Your task to perform on an android device: Go to internet settings Image 0: 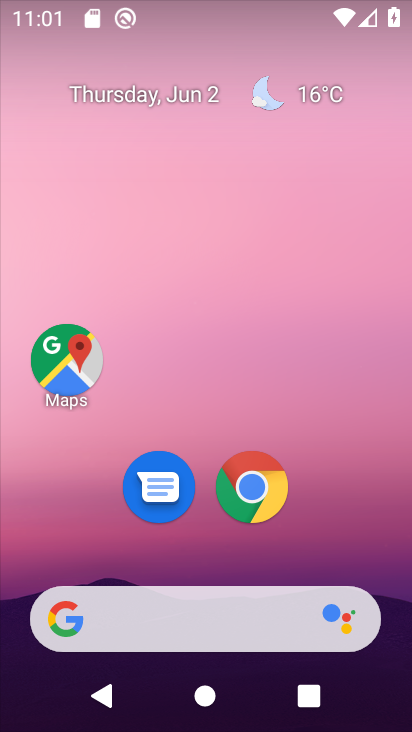
Step 0: drag from (354, 480) to (314, 154)
Your task to perform on an android device: Go to internet settings Image 1: 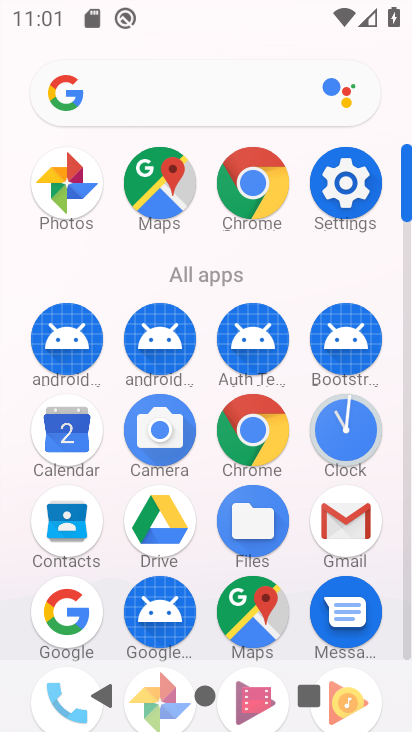
Step 1: click (350, 181)
Your task to perform on an android device: Go to internet settings Image 2: 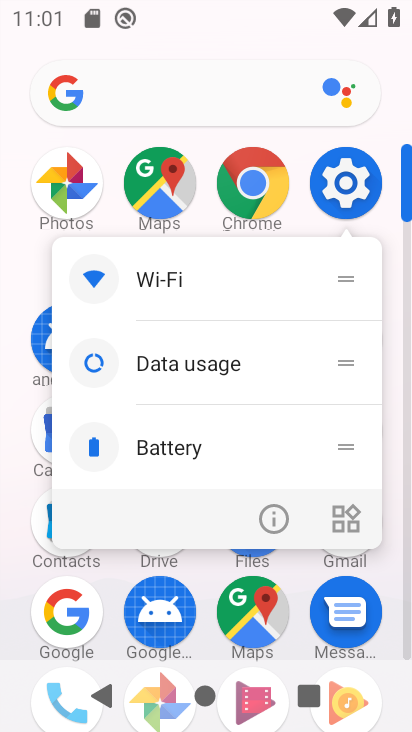
Step 2: click (350, 181)
Your task to perform on an android device: Go to internet settings Image 3: 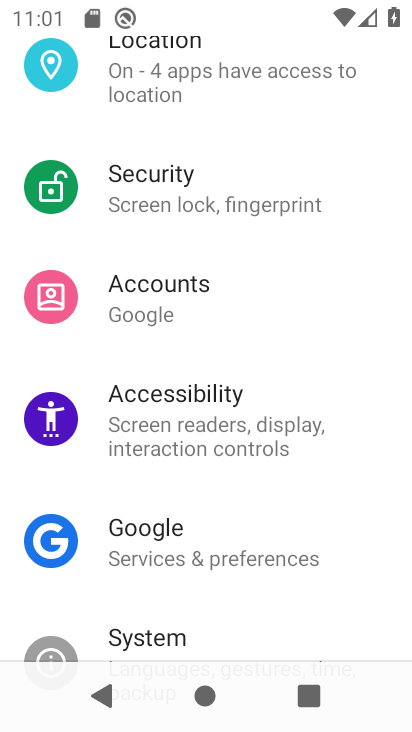
Step 3: drag from (268, 291) to (278, 394)
Your task to perform on an android device: Go to internet settings Image 4: 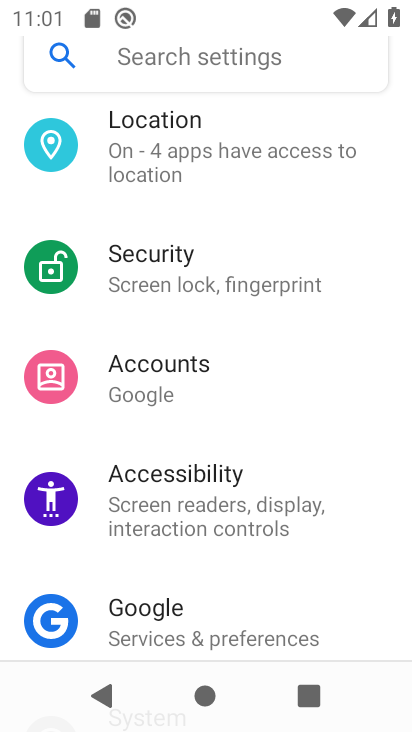
Step 4: drag from (233, 237) to (262, 367)
Your task to perform on an android device: Go to internet settings Image 5: 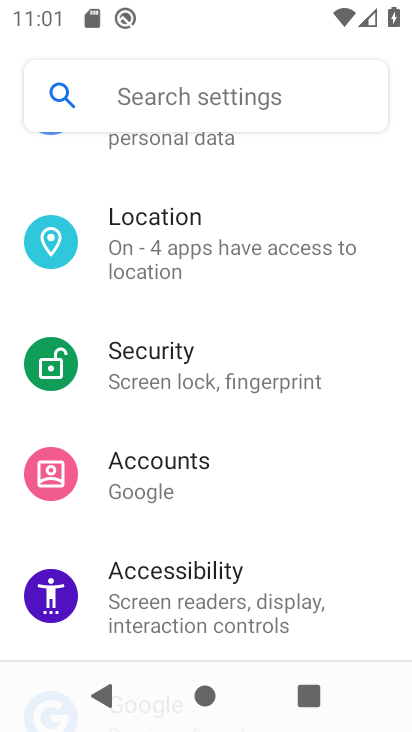
Step 5: drag from (280, 313) to (282, 404)
Your task to perform on an android device: Go to internet settings Image 6: 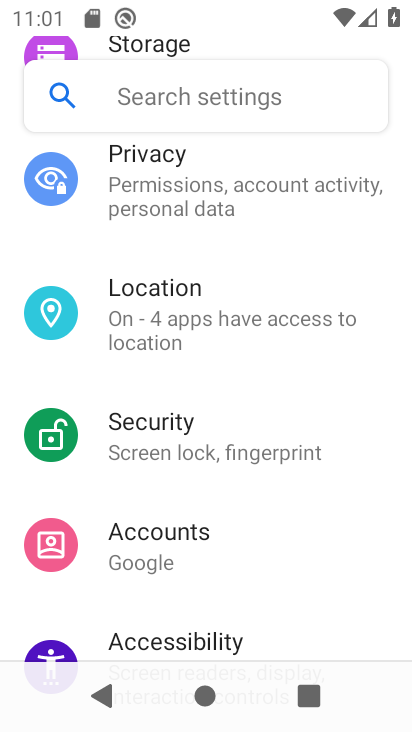
Step 6: drag from (273, 263) to (306, 363)
Your task to perform on an android device: Go to internet settings Image 7: 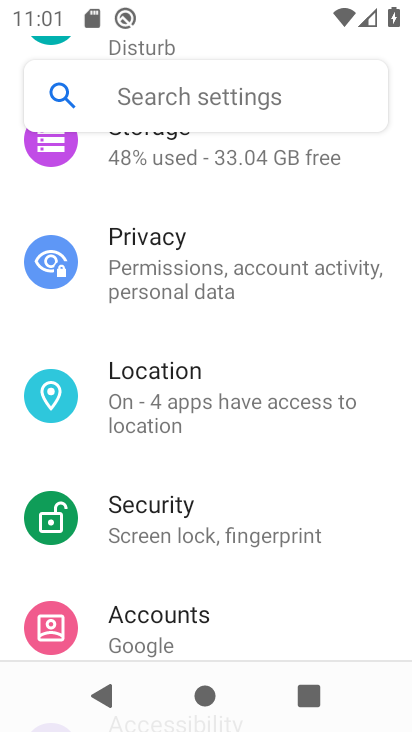
Step 7: drag from (287, 318) to (309, 411)
Your task to perform on an android device: Go to internet settings Image 8: 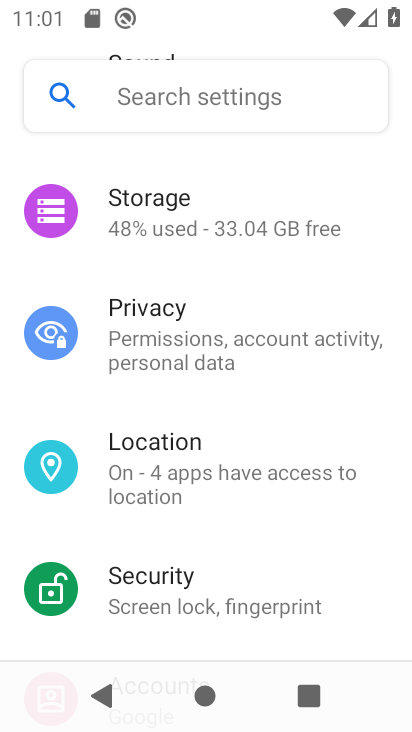
Step 8: drag from (264, 267) to (316, 375)
Your task to perform on an android device: Go to internet settings Image 9: 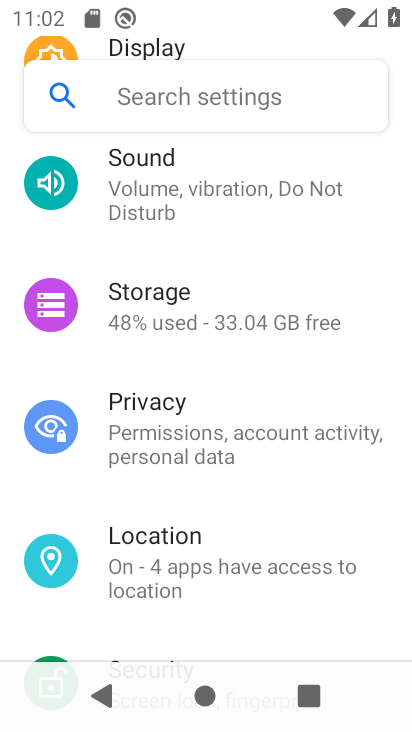
Step 9: drag from (274, 246) to (327, 392)
Your task to perform on an android device: Go to internet settings Image 10: 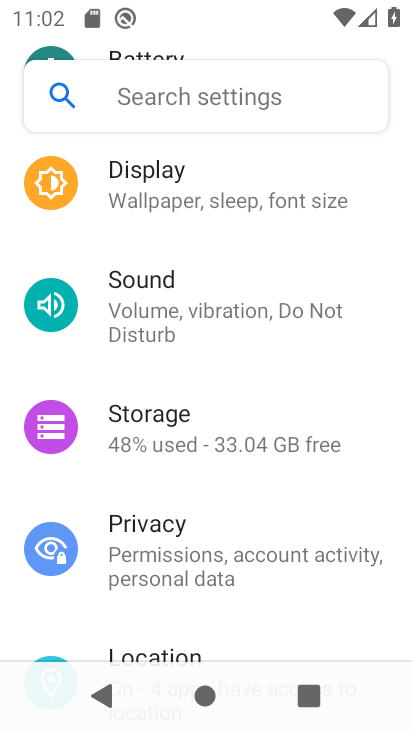
Step 10: drag from (295, 323) to (298, 359)
Your task to perform on an android device: Go to internet settings Image 11: 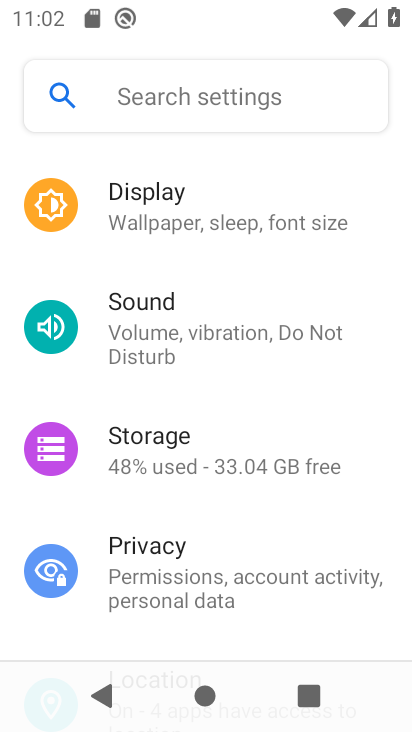
Step 11: drag from (262, 183) to (294, 325)
Your task to perform on an android device: Go to internet settings Image 12: 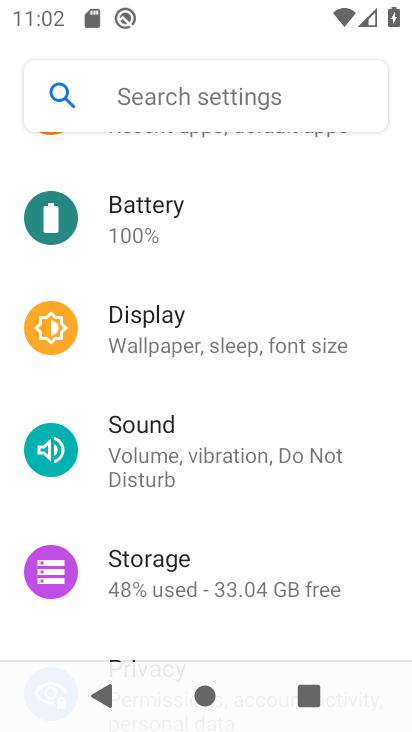
Step 12: drag from (259, 235) to (270, 363)
Your task to perform on an android device: Go to internet settings Image 13: 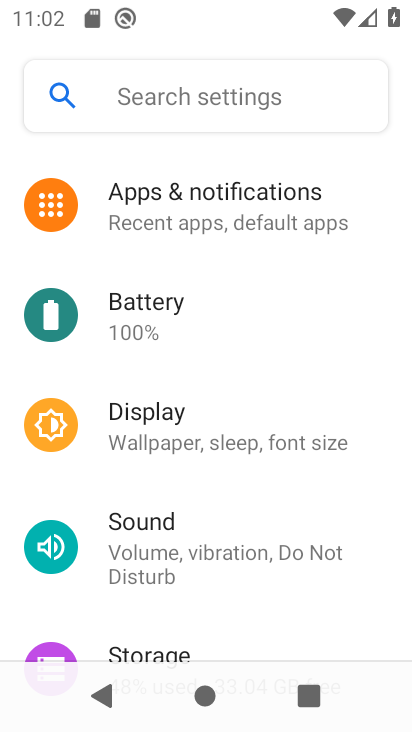
Step 13: drag from (272, 260) to (308, 394)
Your task to perform on an android device: Go to internet settings Image 14: 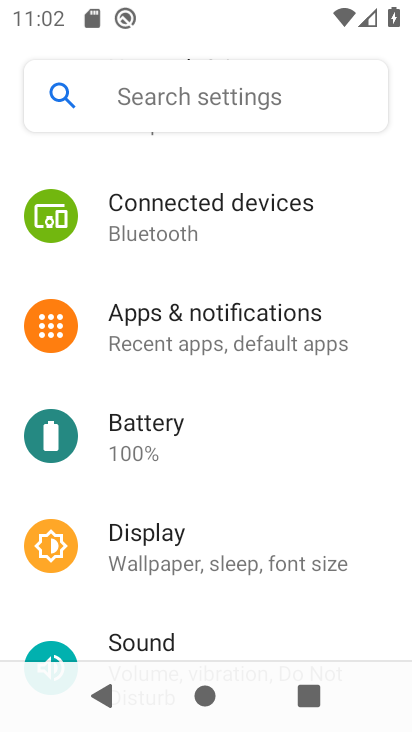
Step 14: drag from (303, 268) to (329, 389)
Your task to perform on an android device: Go to internet settings Image 15: 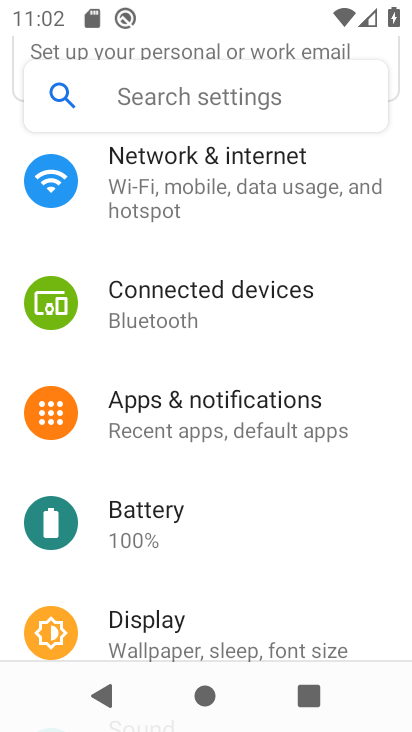
Step 15: click (251, 184)
Your task to perform on an android device: Go to internet settings Image 16: 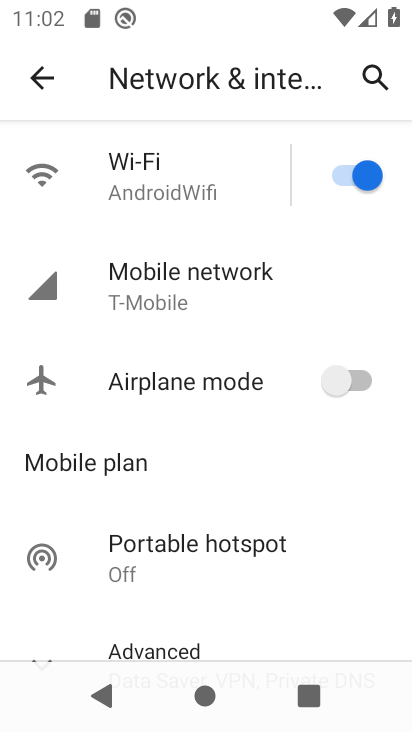
Step 16: click (167, 206)
Your task to perform on an android device: Go to internet settings Image 17: 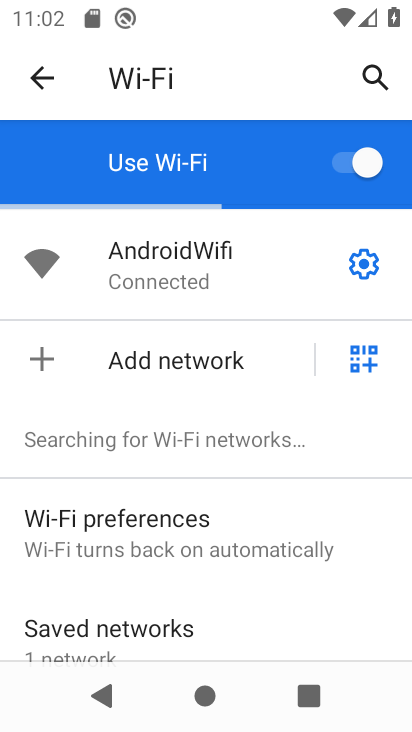
Step 17: task complete